Your task to perform on an android device: Go to ESPN.com Image 0: 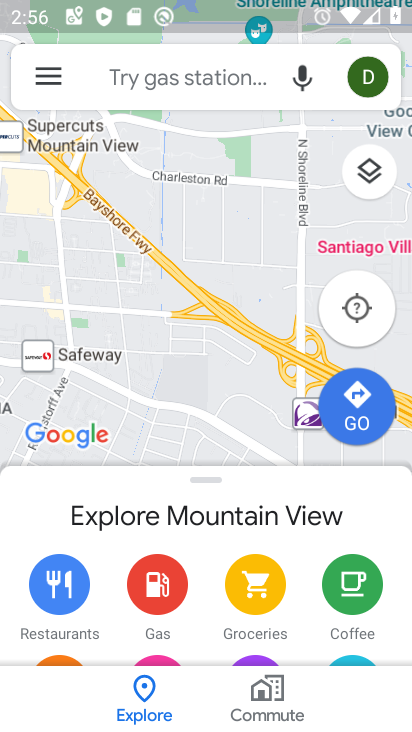
Step 0: press home button
Your task to perform on an android device: Go to ESPN.com Image 1: 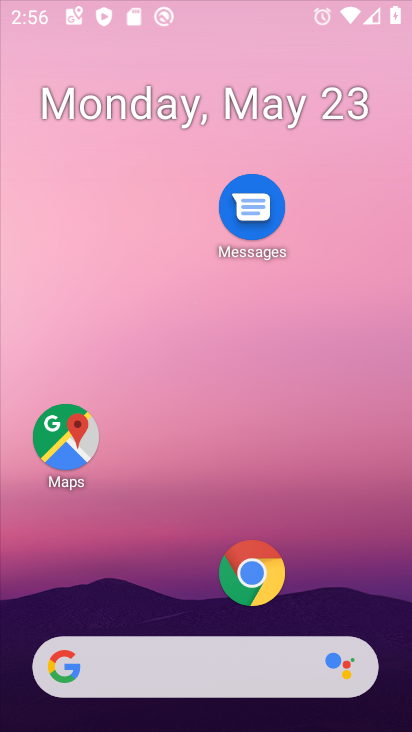
Step 1: drag from (291, 659) to (291, 81)
Your task to perform on an android device: Go to ESPN.com Image 2: 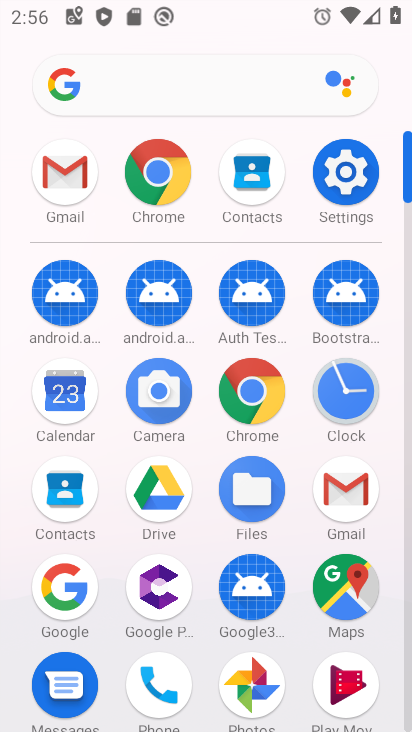
Step 2: click (260, 401)
Your task to perform on an android device: Go to ESPN.com Image 3: 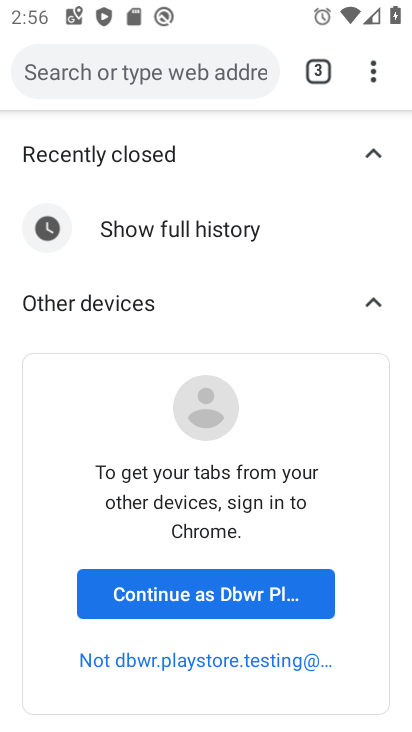
Step 3: click (121, 95)
Your task to perform on an android device: Go to ESPN.com Image 4: 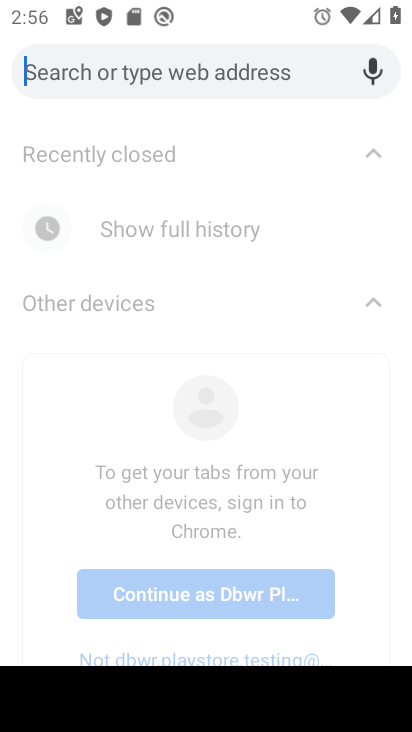
Step 4: type "espn.com"
Your task to perform on an android device: Go to ESPN.com Image 5: 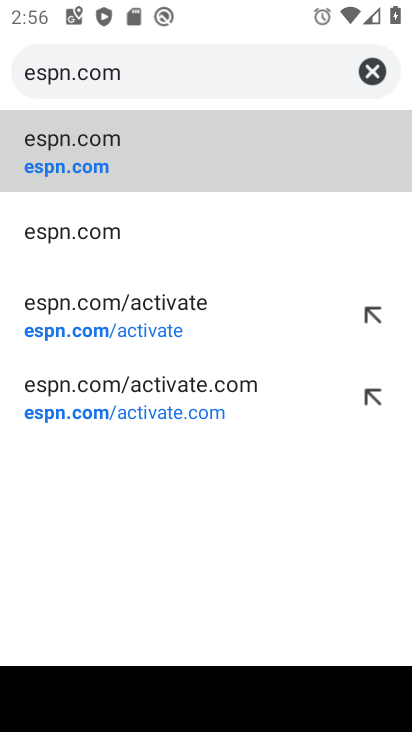
Step 5: click (194, 135)
Your task to perform on an android device: Go to ESPN.com Image 6: 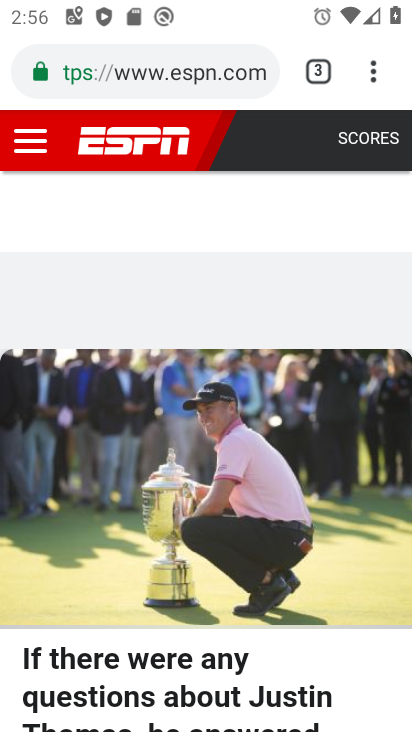
Step 6: task complete